Your task to perform on an android device: turn smart compose on in the gmail app Image 0: 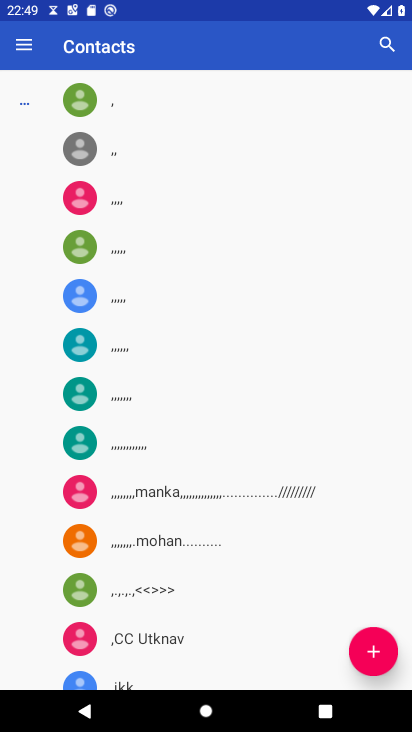
Step 0: press home button
Your task to perform on an android device: turn smart compose on in the gmail app Image 1: 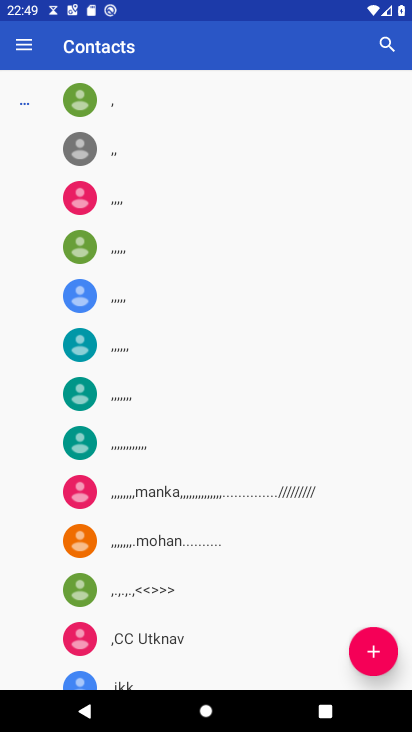
Step 1: press home button
Your task to perform on an android device: turn smart compose on in the gmail app Image 2: 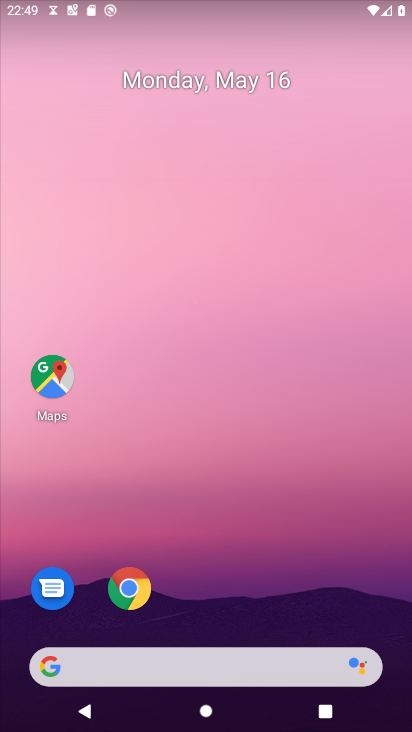
Step 2: drag from (210, 625) to (246, 11)
Your task to perform on an android device: turn smart compose on in the gmail app Image 3: 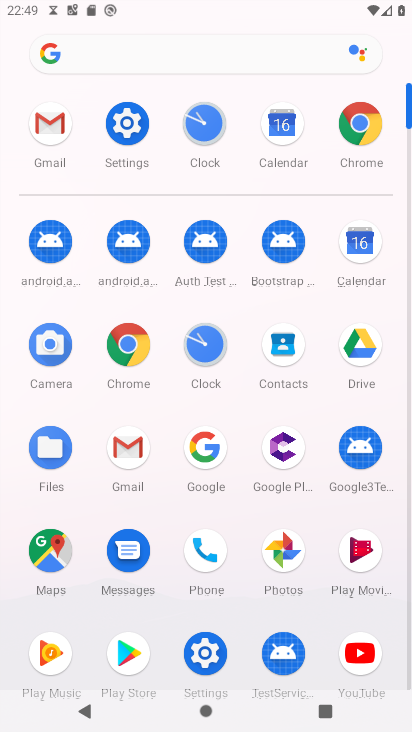
Step 3: click (129, 444)
Your task to perform on an android device: turn smart compose on in the gmail app Image 4: 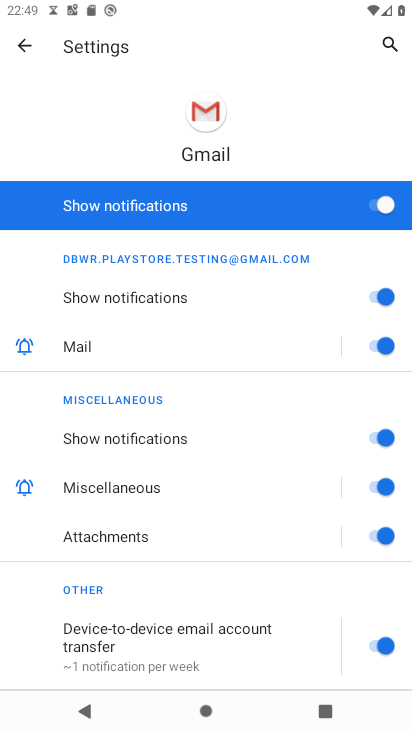
Step 4: click (20, 43)
Your task to perform on an android device: turn smart compose on in the gmail app Image 5: 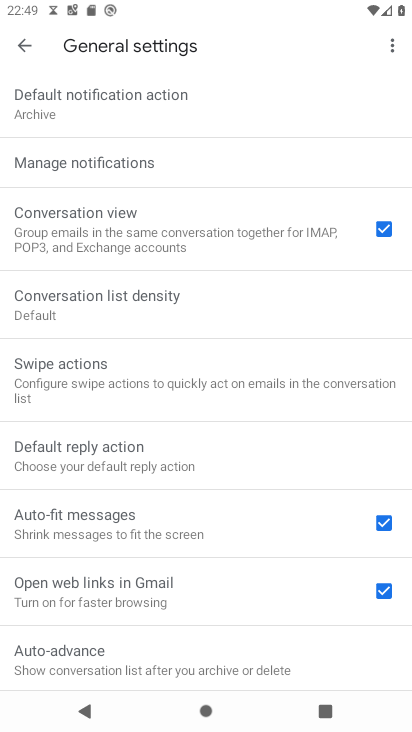
Step 5: click (23, 48)
Your task to perform on an android device: turn smart compose on in the gmail app Image 6: 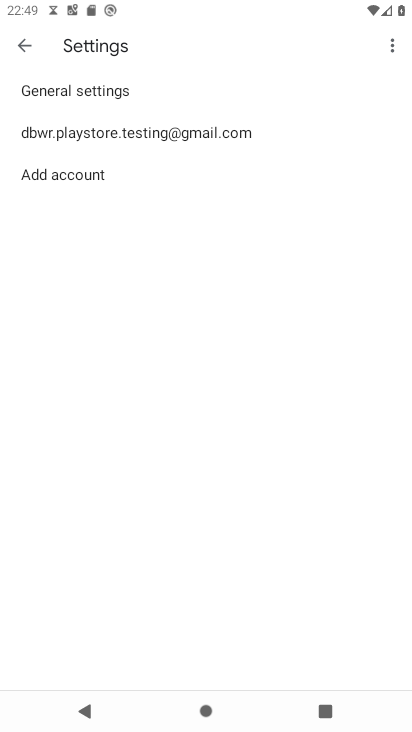
Step 6: click (200, 129)
Your task to perform on an android device: turn smart compose on in the gmail app Image 7: 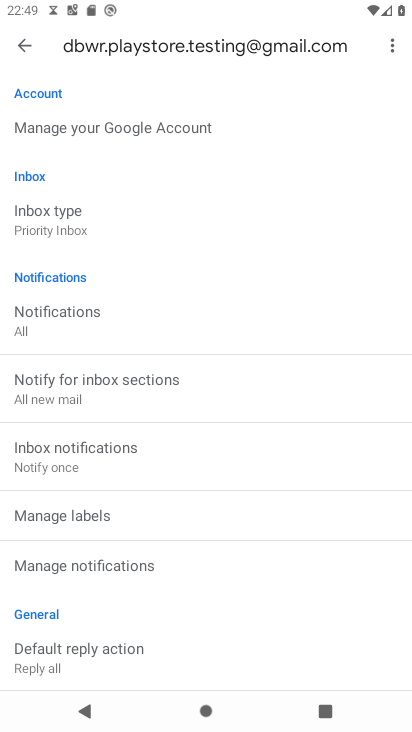
Step 7: task complete